Your task to perform on an android device: Open display settings Image 0: 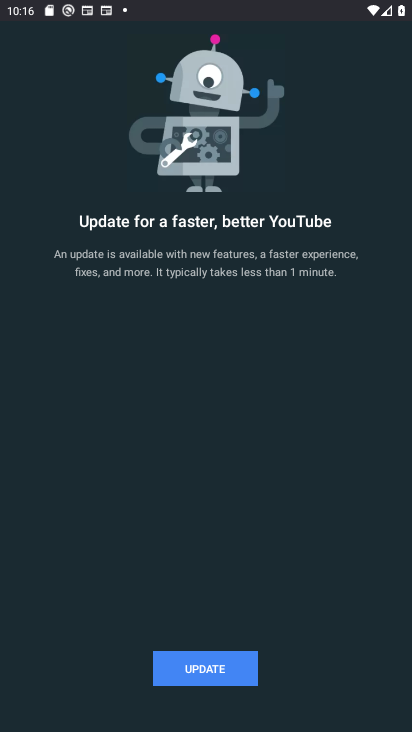
Step 0: press home button
Your task to perform on an android device: Open display settings Image 1: 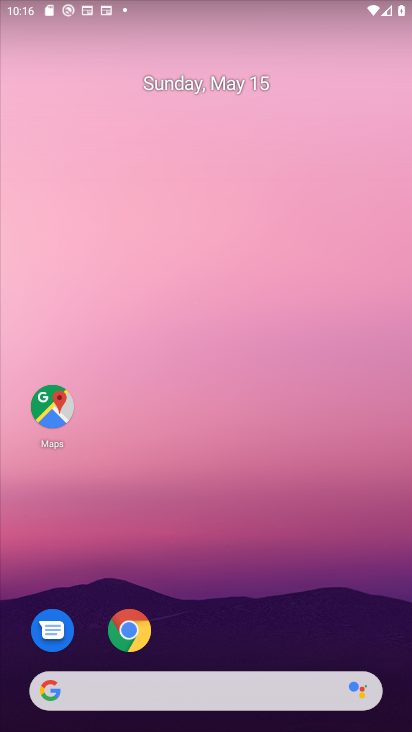
Step 1: drag from (211, 636) to (288, 165)
Your task to perform on an android device: Open display settings Image 2: 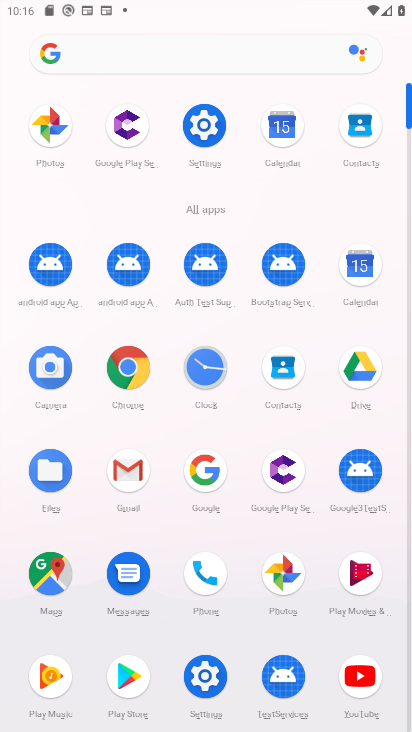
Step 2: click (197, 665)
Your task to perform on an android device: Open display settings Image 3: 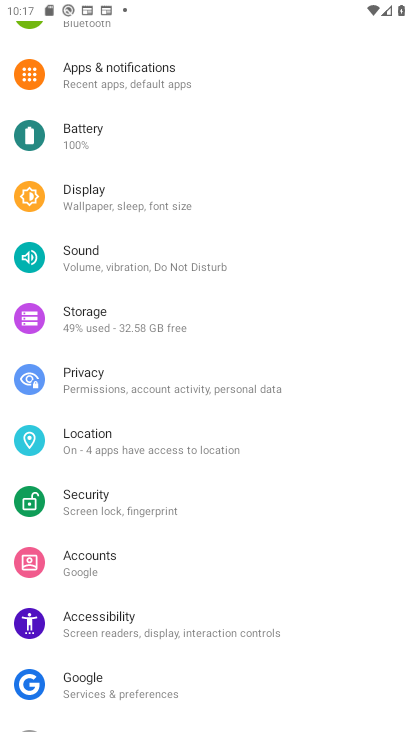
Step 3: click (117, 195)
Your task to perform on an android device: Open display settings Image 4: 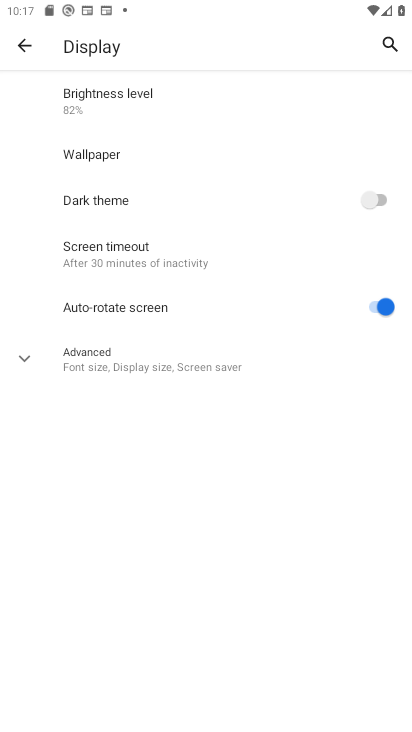
Step 4: click (43, 348)
Your task to perform on an android device: Open display settings Image 5: 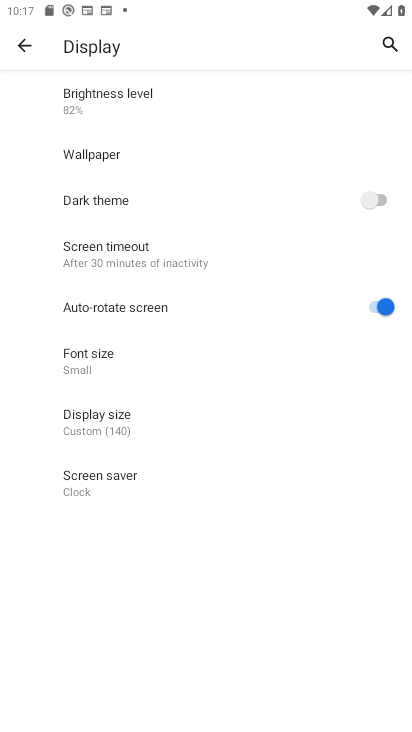
Step 5: task complete